Your task to perform on an android device: turn on javascript in the chrome app Image 0: 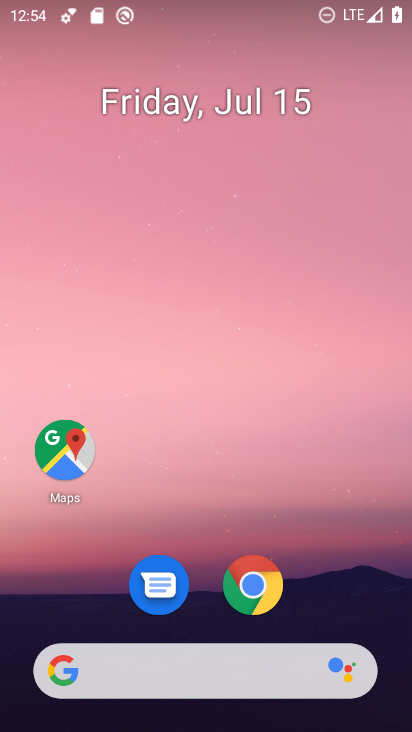
Step 0: click (265, 578)
Your task to perform on an android device: turn on javascript in the chrome app Image 1: 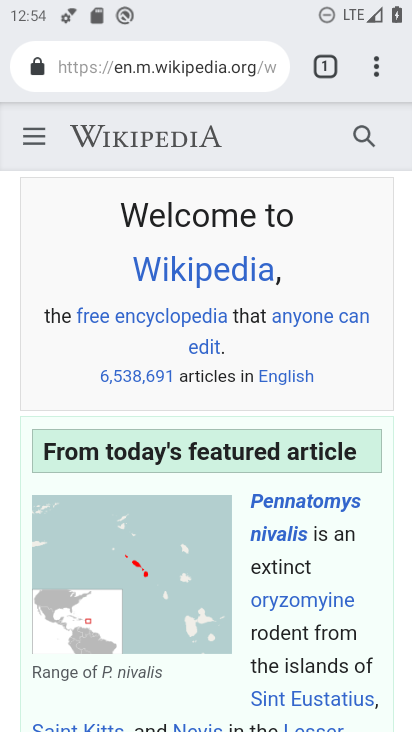
Step 1: click (377, 70)
Your task to perform on an android device: turn on javascript in the chrome app Image 2: 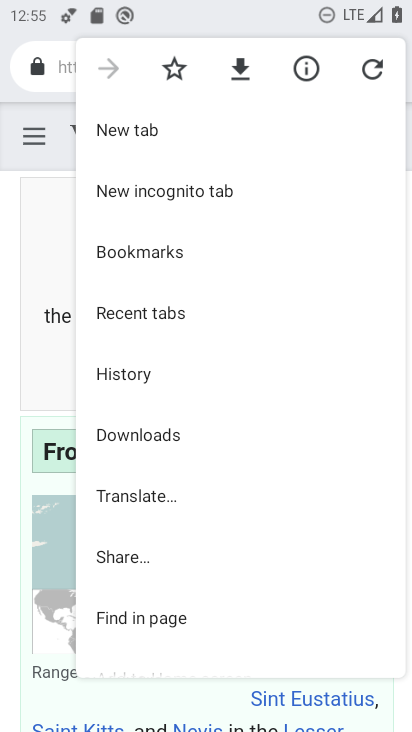
Step 2: drag from (264, 510) to (227, 180)
Your task to perform on an android device: turn on javascript in the chrome app Image 3: 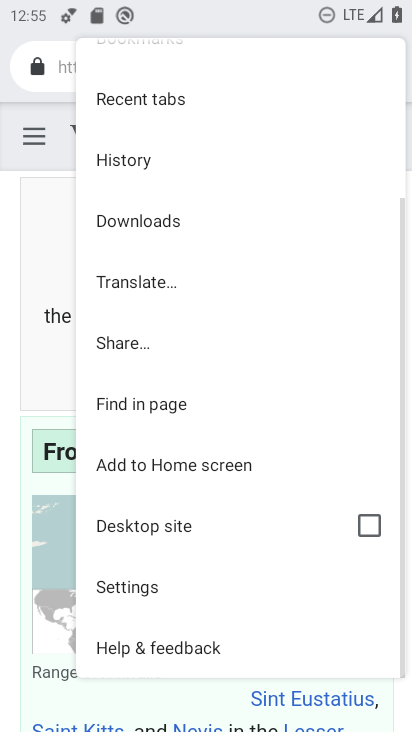
Step 3: click (128, 585)
Your task to perform on an android device: turn on javascript in the chrome app Image 4: 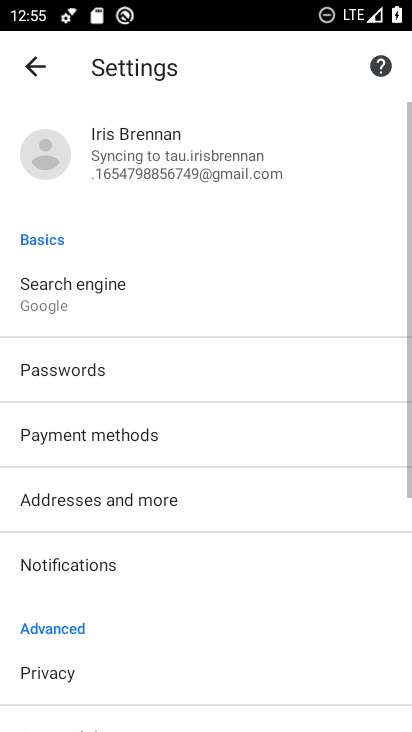
Step 4: drag from (260, 478) to (251, 243)
Your task to perform on an android device: turn on javascript in the chrome app Image 5: 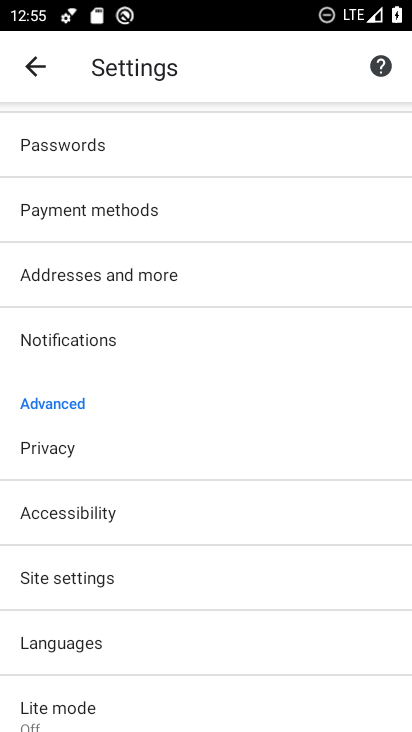
Step 5: click (92, 570)
Your task to perform on an android device: turn on javascript in the chrome app Image 6: 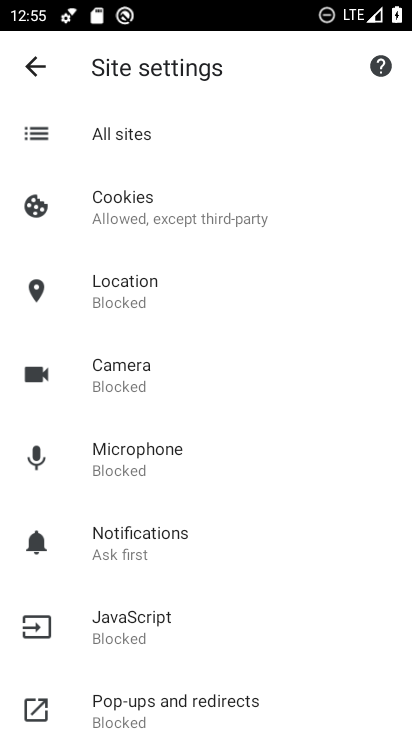
Step 6: drag from (277, 524) to (298, 338)
Your task to perform on an android device: turn on javascript in the chrome app Image 7: 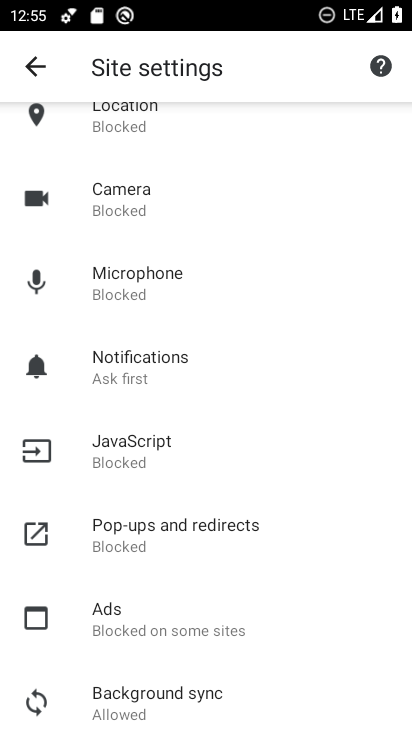
Step 7: click (165, 446)
Your task to perform on an android device: turn on javascript in the chrome app Image 8: 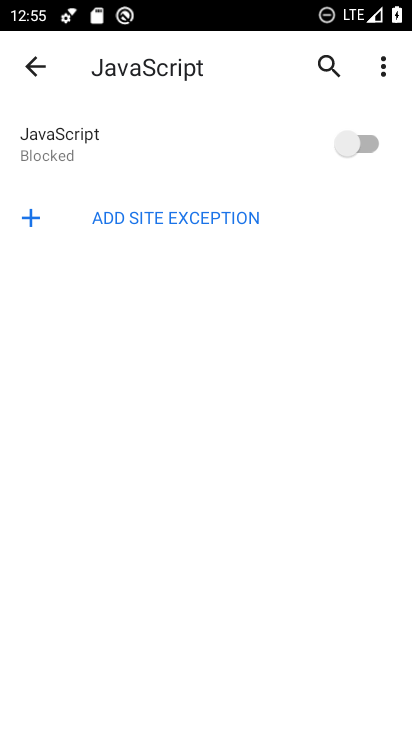
Step 8: click (352, 131)
Your task to perform on an android device: turn on javascript in the chrome app Image 9: 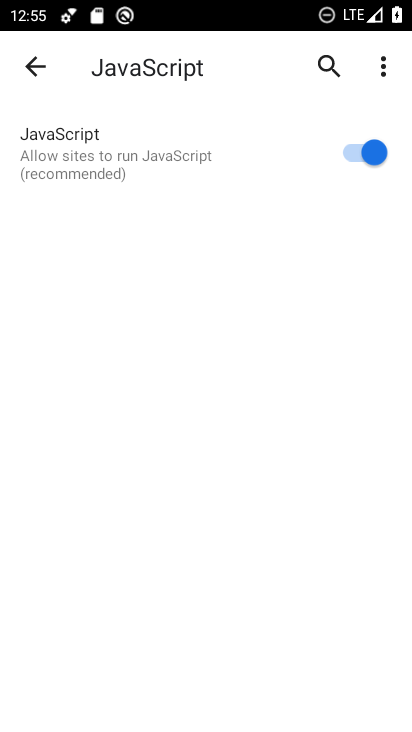
Step 9: task complete